Your task to perform on an android device: Open Chrome and go to the settings page Image 0: 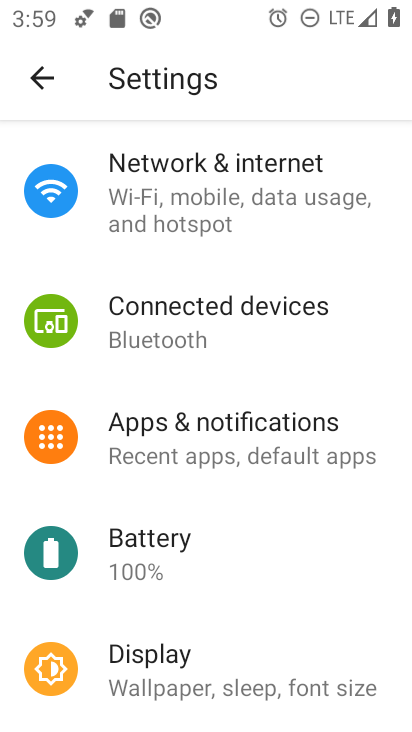
Step 0: press back button
Your task to perform on an android device: Open Chrome and go to the settings page Image 1: 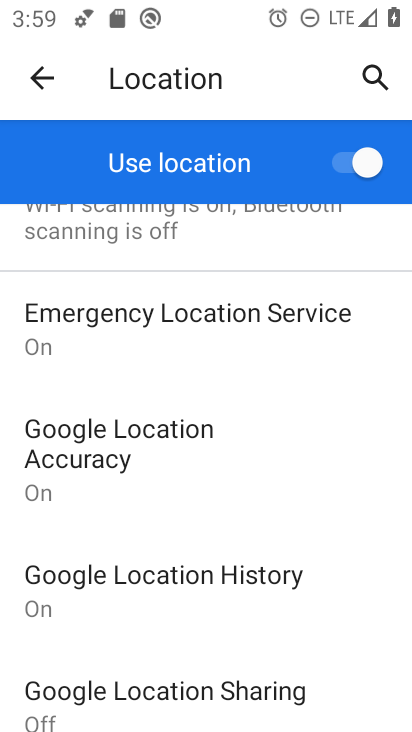
Step 1: press back button
Your task to perform on an android device: Open Chrome and go to the settings page Image 2: 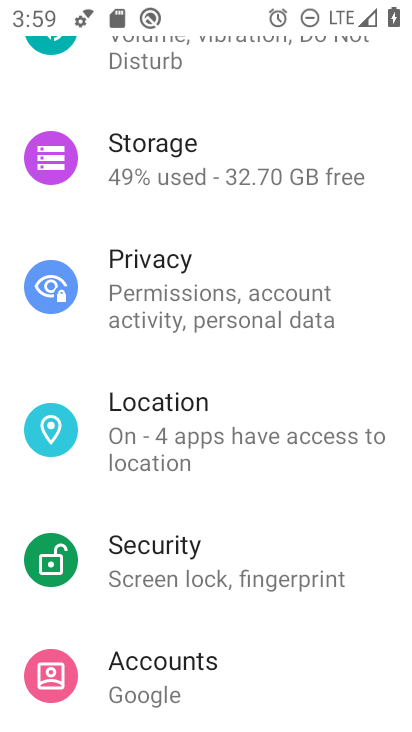
Step 2: press back button
Your task to perform on an android device: Open Chrome and go to the settings page Image 3: 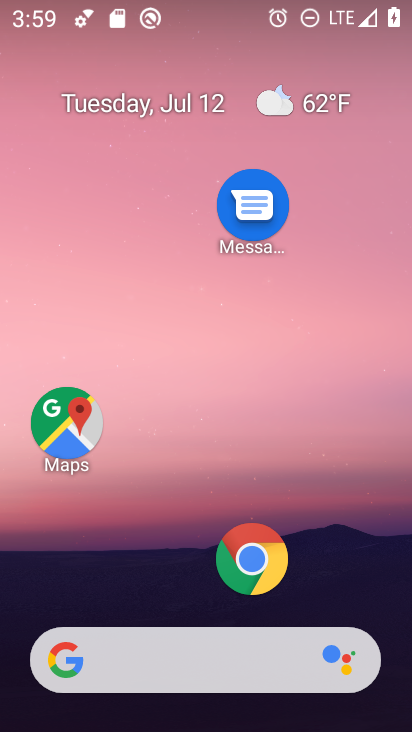
Step 3: click (257, 561)
Your task to perform on an android device: Open Chrome and go to the settings page Image 4: 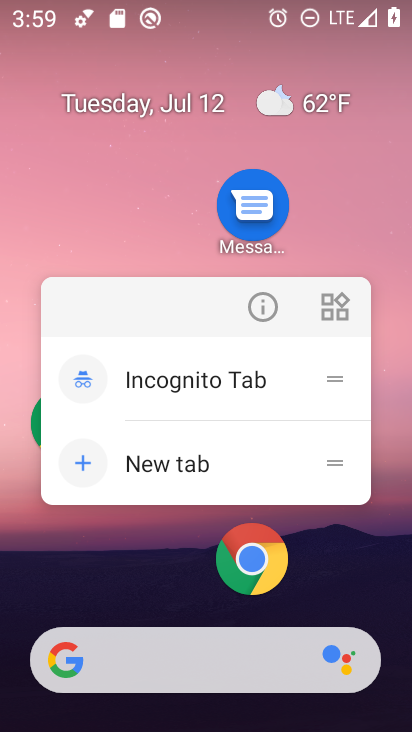
Step 4: click (250, 554)
Your task to perform on an android device: Open Chrome and go to the settings page Image 5: 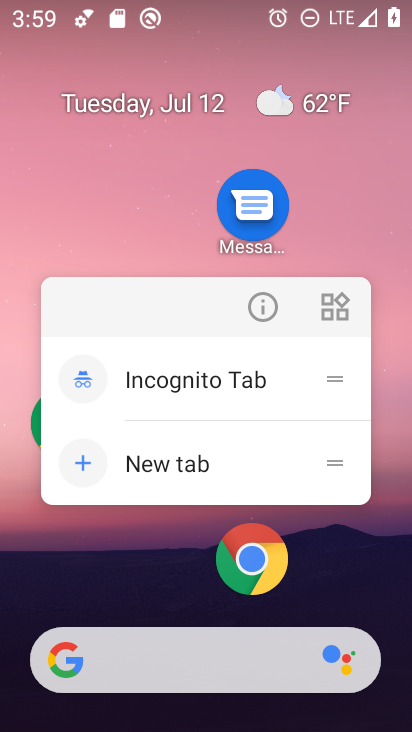
Step 5: click (250, 554)
Your task to perform on an android device: Open Chrome and go to the settings page Image 6: 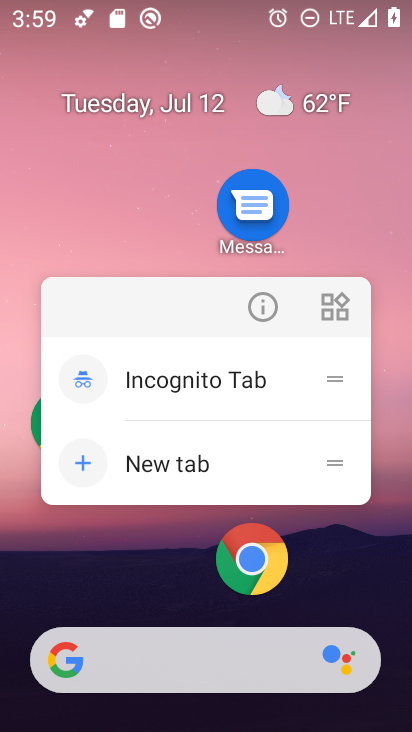
Step 6: click (251, 555)
Your task to perform on an android device: Open Chrome and go to the settings page Image 7: 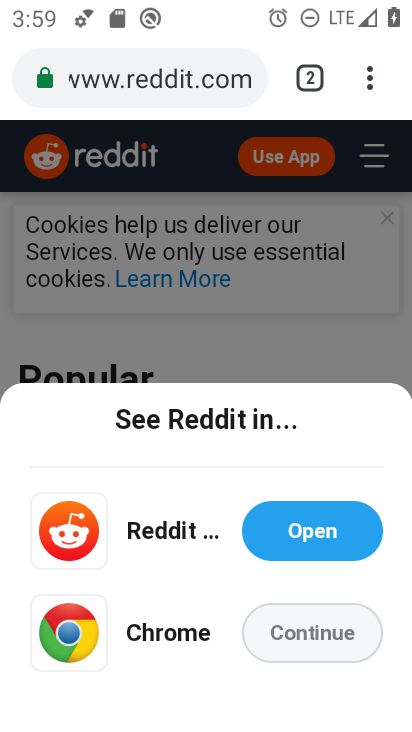
Step 7: task complete